Your task to perform on an android device: Open the stopwatch Image 0: 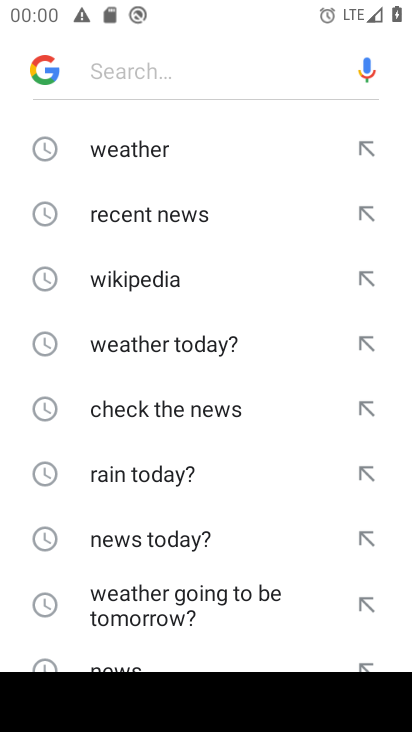
Step 0: press home button
Your task to perform on an android device: Open the stopwatch Image 1: 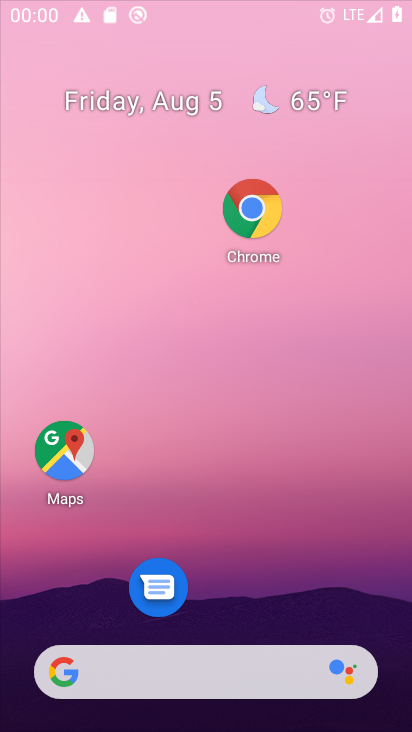
Step 1: drag from (183, 648) to (225, 209)
Your task to perform on an android device: Open the stopwatch Image 2: 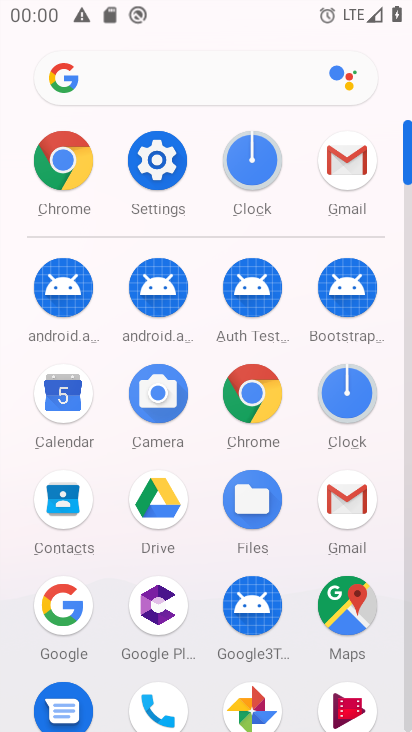
Step 2: click (257, 164)
Your task to perform on an android device: Open the stopwatch Image 3: 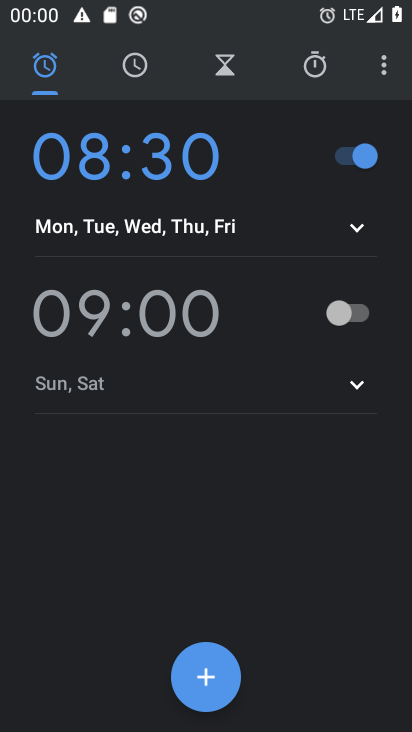
Step 3: click (322, 71)
Your task to perform on an android device: Open the stopwatch Image 4: 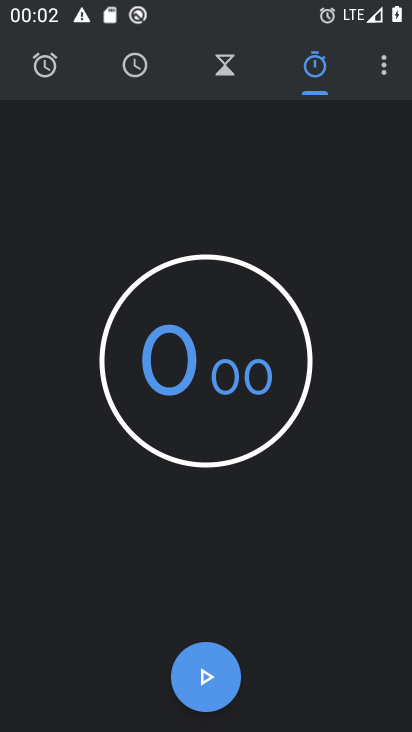
Step 4: task complete